Your task to perform on an android device: Open network settings Image 0: 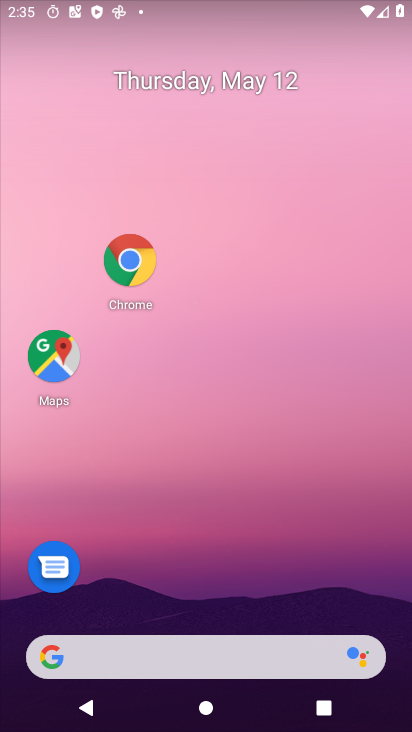
Step 0: press home button
Your task to perform on an android device: Open network settings Image 1: 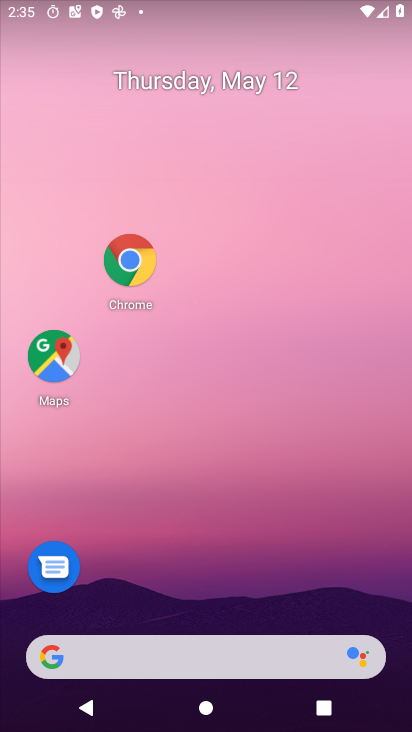
Step 1: drag from (199, 637) to (218, 257)
Your task to perform on an android device: Open network settings Image 2: 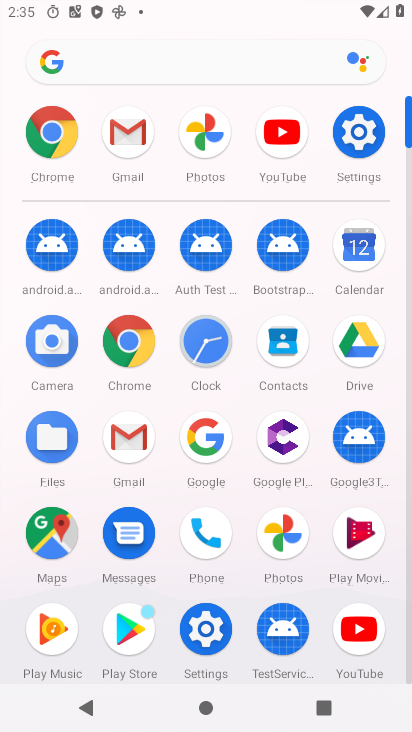
Step 2: click (194, 627)
Your task to perform on an android device: Open network settings Image 3: 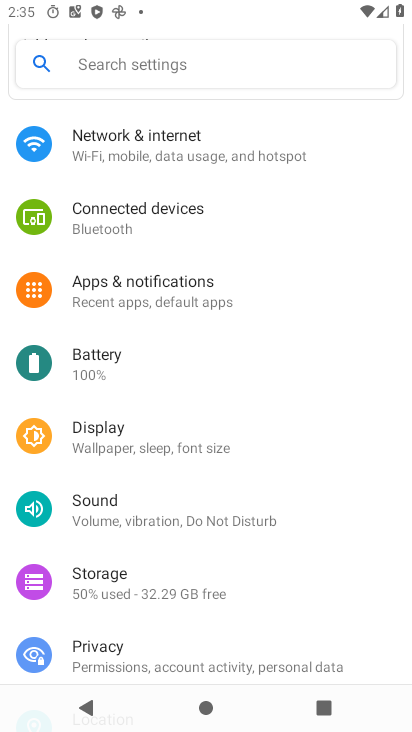
Step 3: click (187, 143)
Your task to perform on an android device: Open network settings Image 4: 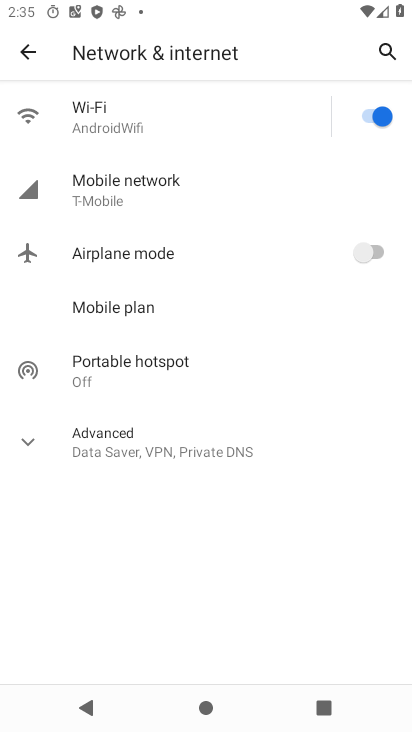
Step 4: click (132, 438)
Your task to perform on an android device: Open network settings Image 5: 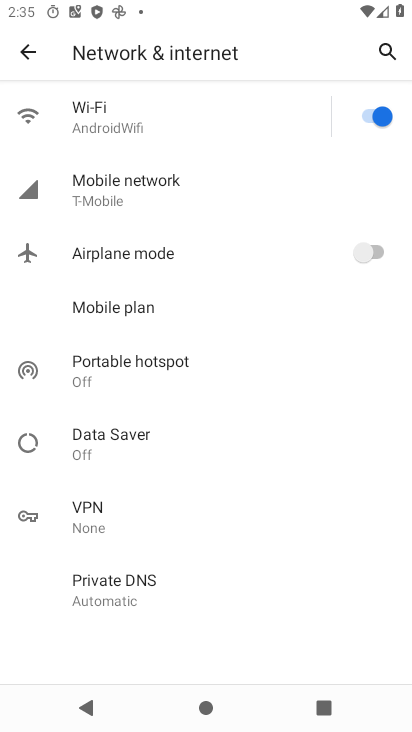
Step 5: task complete